Your task to perform on an android device: move an email to a new category in the gmail app Image 0: 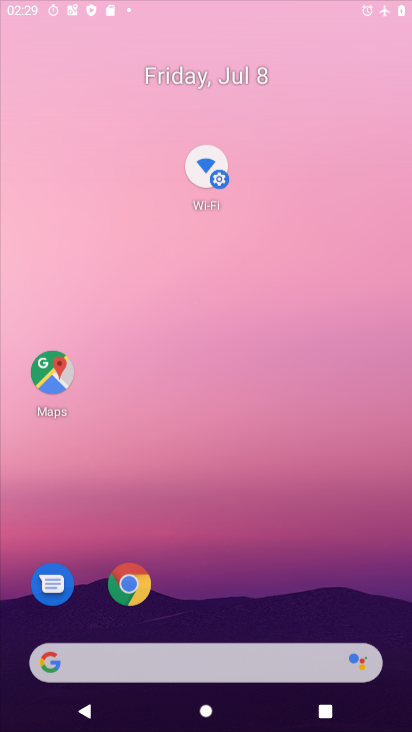
Step 0: click (267, 19)
Your task to perform on an android device: move an email to a new category in the gmail app Image 1: 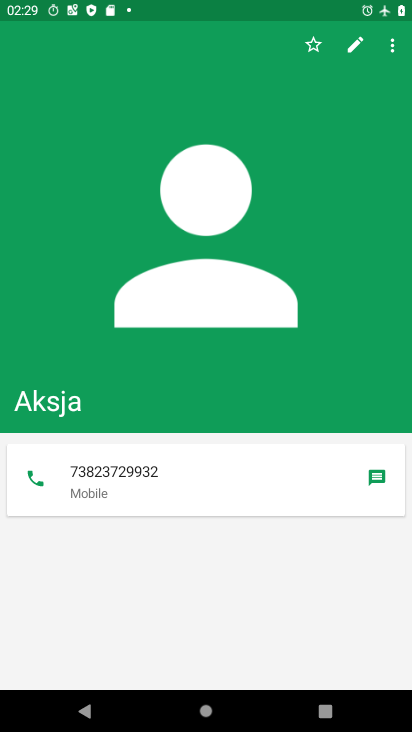
Step 1: press home button
Your task to perform on an android device: move an email to a new category in the gmail app Image 2: 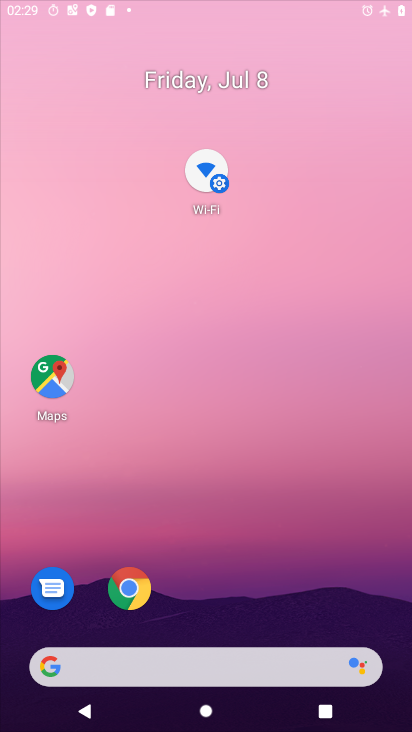
Step 2: drag from (171, 644) to (142, 57)
Your task to perform on an android device: move an email to a new category in the gmail app Image 3: 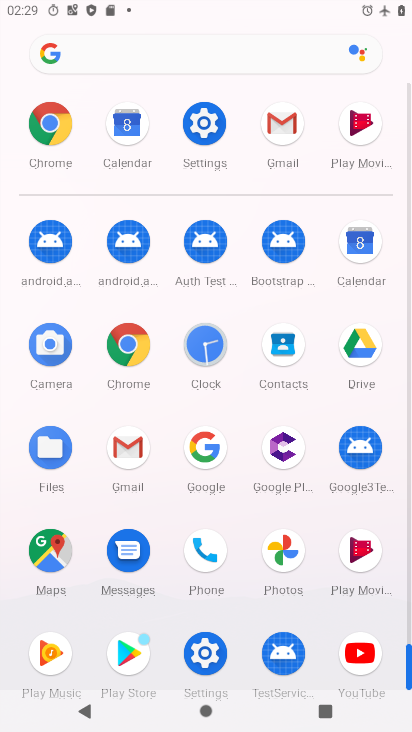
Step 3: click (117, 431)
Your task to perform on an android device: move an email to a new category in the gmail app Image 4: 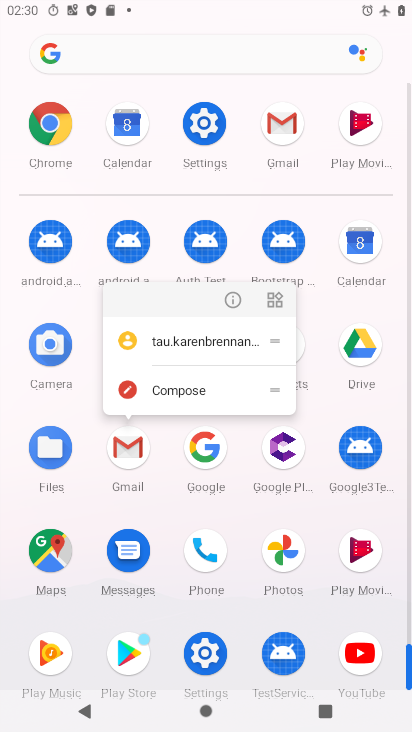
Step 4: click (236, 297)
Your task to perform on an android device: move an email to a new category in the gmail app Image 5: 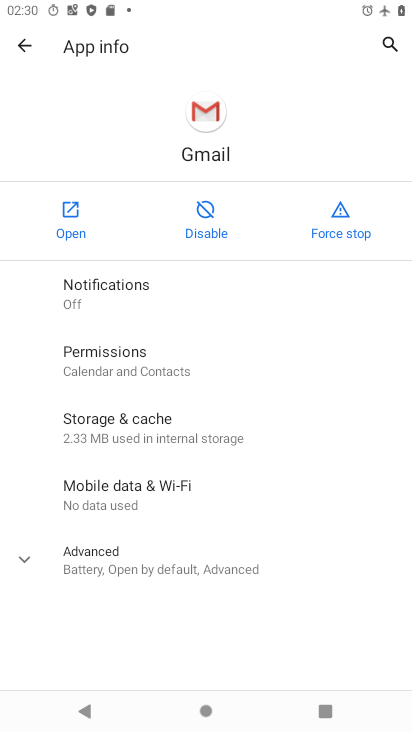
Step 5: click (79, 231)
Your task to perform on an android device: move an email to a new category in the gmail app Image 6: 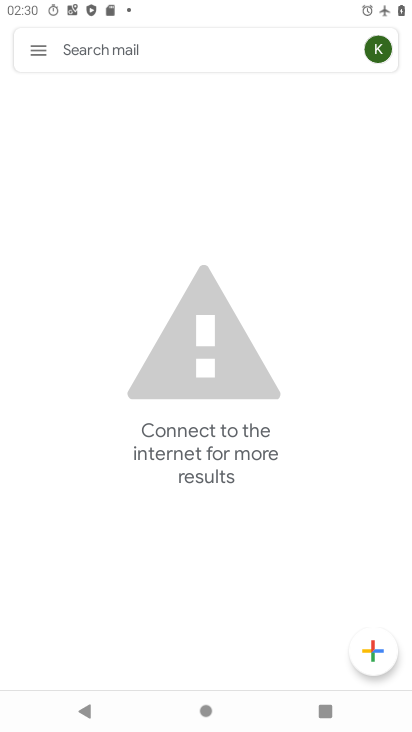
Step 6: task complete